Your task to perform on an android device: Search for Italian restaurants on Maps Image 0: 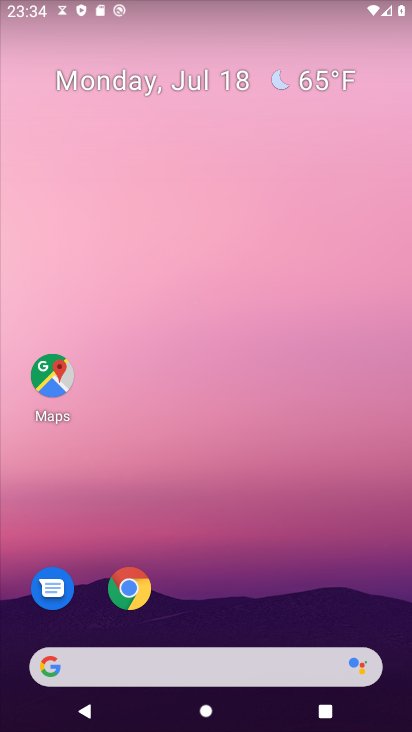
Step 0: press home button
Your task to perform on an android device: Search for Italian restaurants on Maps Image 1: 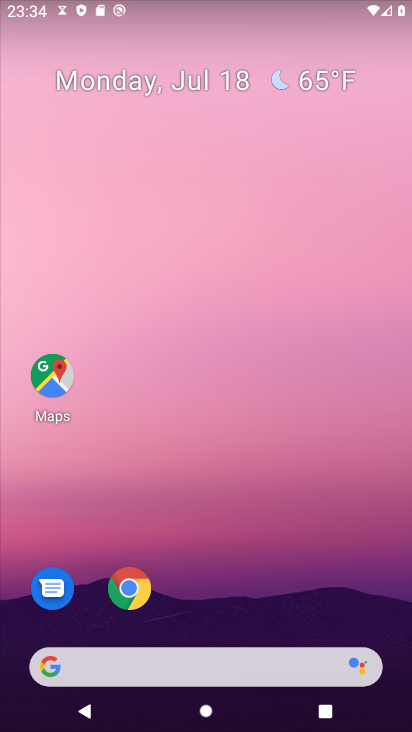
Step 1: click (51, 374)
Your task to perform on an android device: Search for Italian restaurants on Maps Image 2: 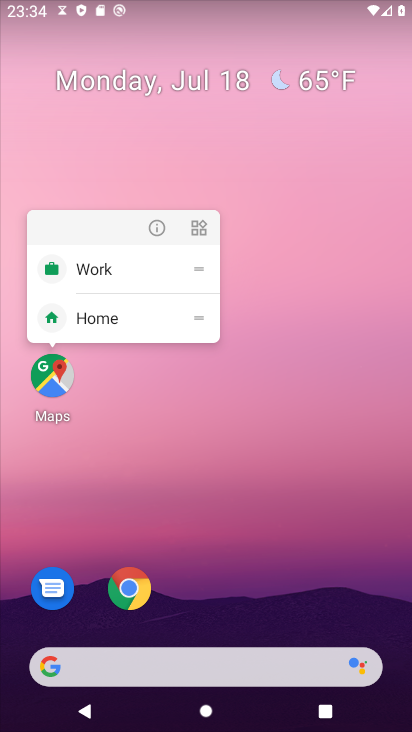
Step 2: click (47, 376)
Your task to perform on an android device: Search for Italian restaurants on Maps Image 3: 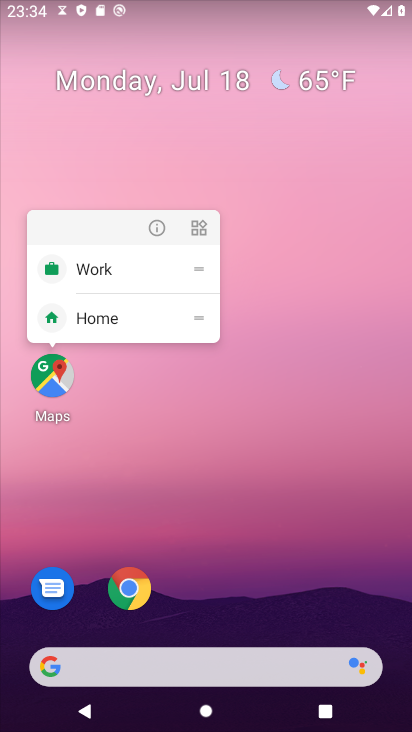
Step 3: click (47, 376)
Your task to perform on an android device: Search for Italian restaurants on Maps Image 4: 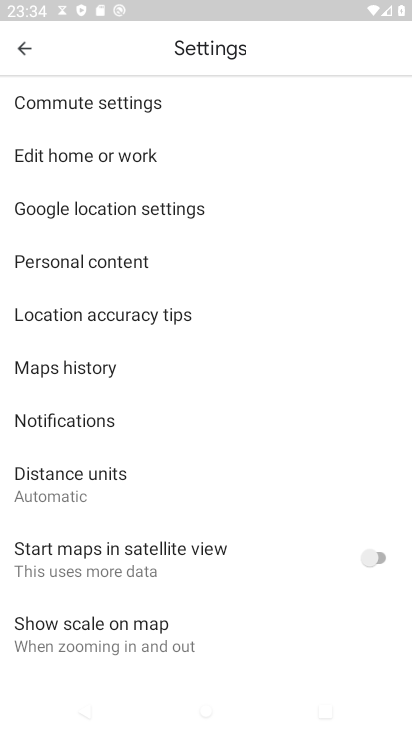
Step 4: click (22, 46)
Your task to perform on an android device: Search for Italian restaurants on Maps Image 5: 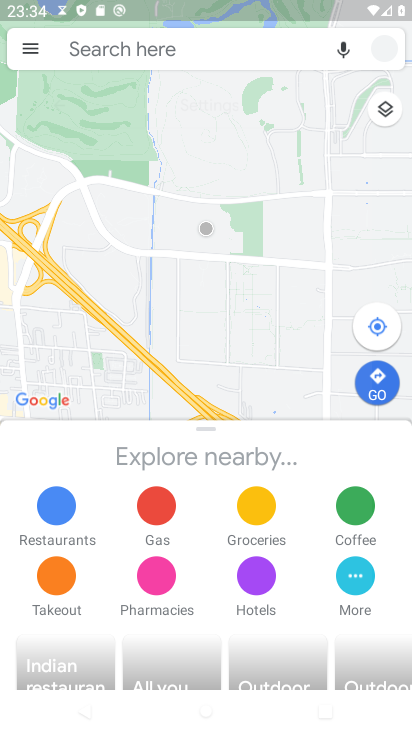
Step 5: click (17, 43)
Your task to perform on an android device: Search for Italian restaurants on Maps Image 6: 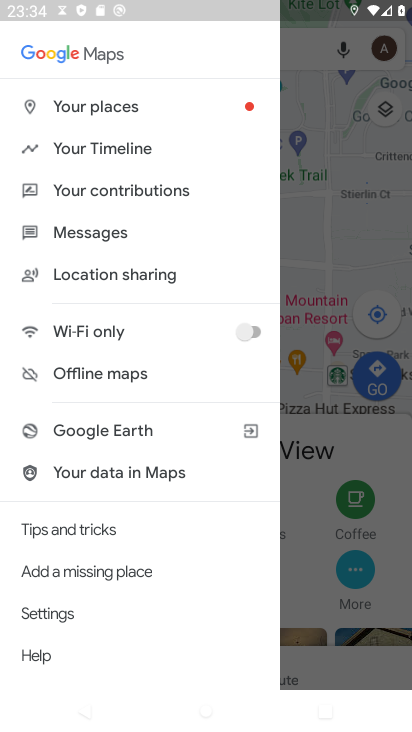
Step 6: type " Italian restaurants"
Your task to perform on an android device: Search for Italian restaurants on Maps Image 7: 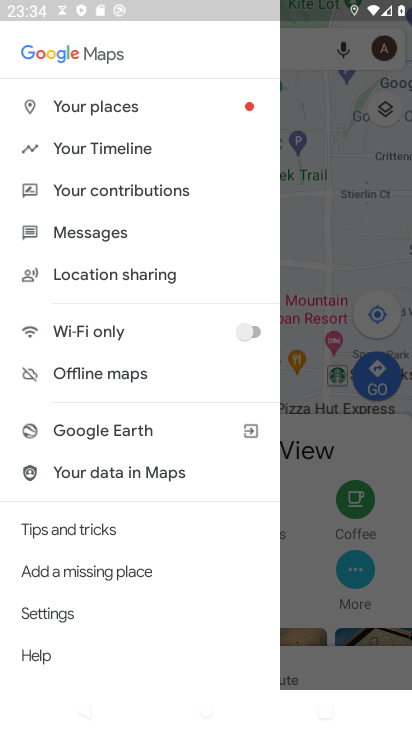
Step 7: click (306, 49)
Your task to perform on an android device: Search for Italian restaurants on Maps Image 8: 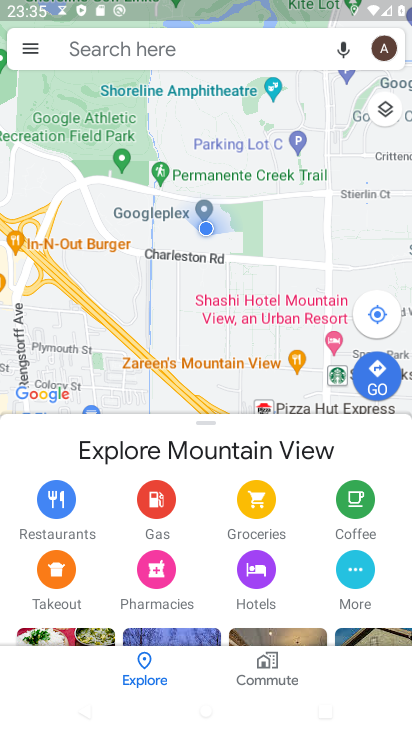
Step 8: click (202, 34)
Your task to perform on an android device: Search for Italian restaurants on Maps Image 9: 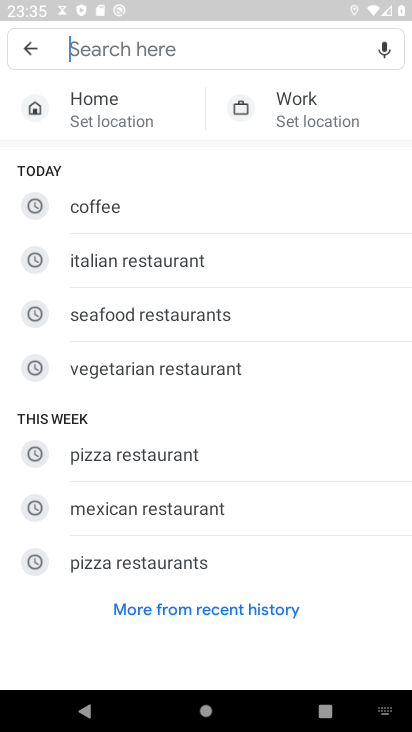
Step 9: type " Italian restaurants"
Your task to perform on an android device: Search for Italian restaurants on Maps Image 10: 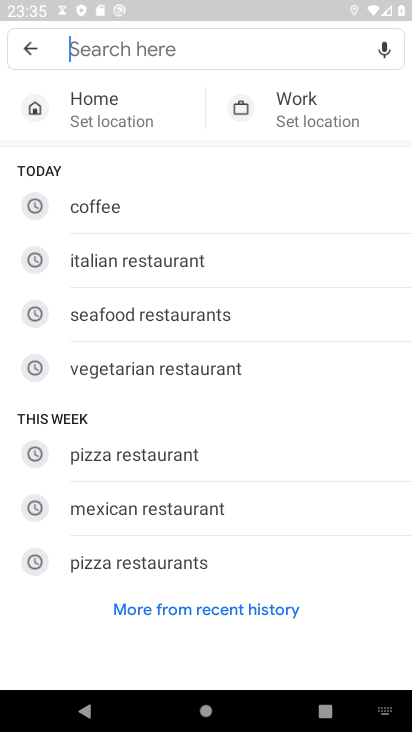
Step 10: click (131, 45)
Your task to perform on an android device: Search for Italian restaurants on Maps Image 11: 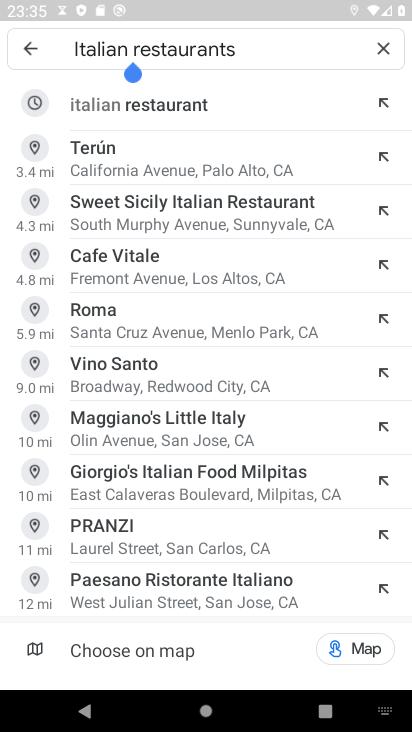
Step 11: click (135, 106)
Your task to perform on an android device: Search for Italian restaurants on Maps Image 12: 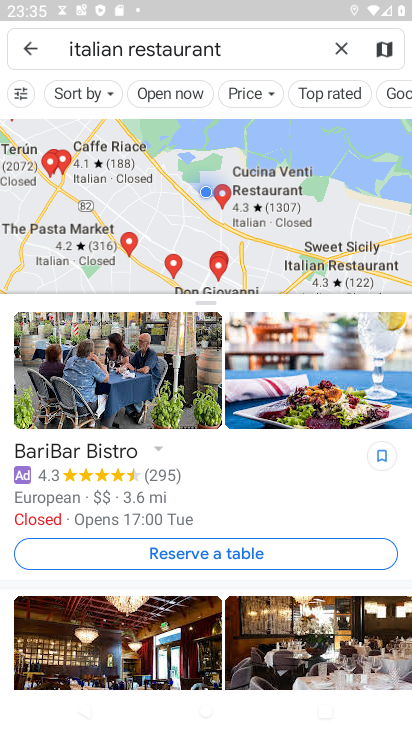
Step 12: task complete